Your task to perform on an android device: set the timer Image 0: 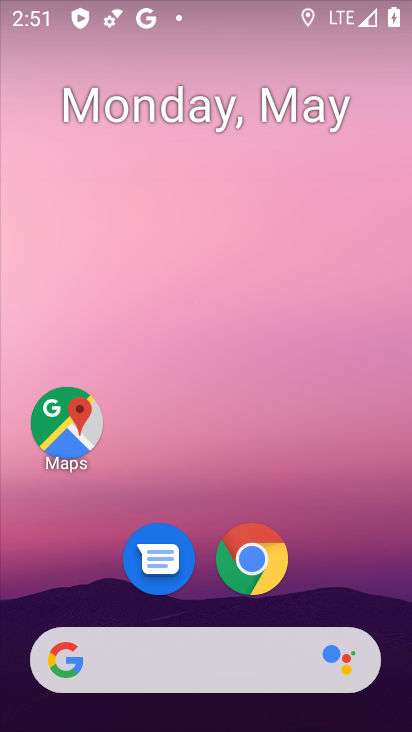
Step 0: drag from (329, 587) to (310, 5)
Your task to perform on an android device: set the timer Image 1: 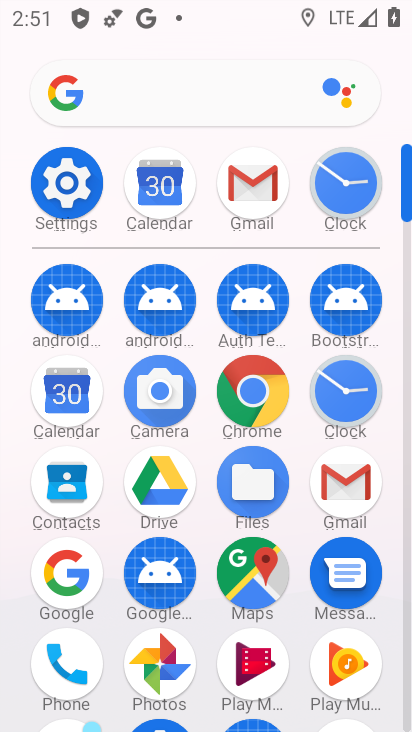
Step 1: click (350, 183)
Your task to perform on an android device: set the timer Image 2: 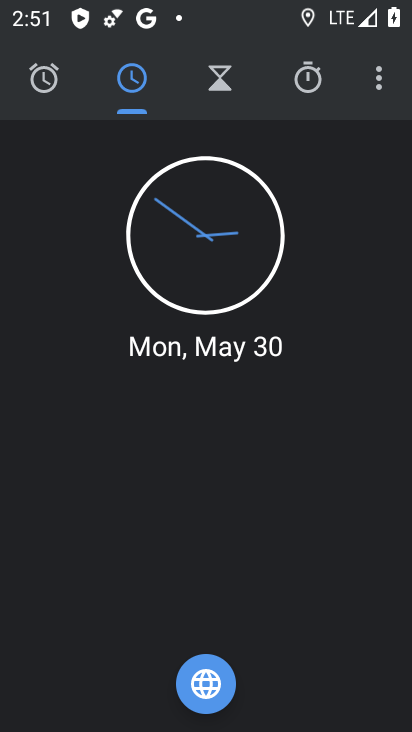
Step 2: click (224, 92)
Your task to perform on an android device: set the timer Image 3: 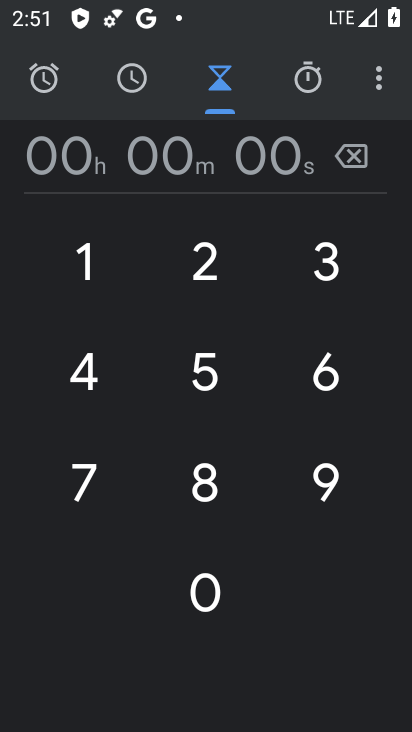
Step 3: click (107, 292)
Your task to perform on an android device: set the timer Image 4: 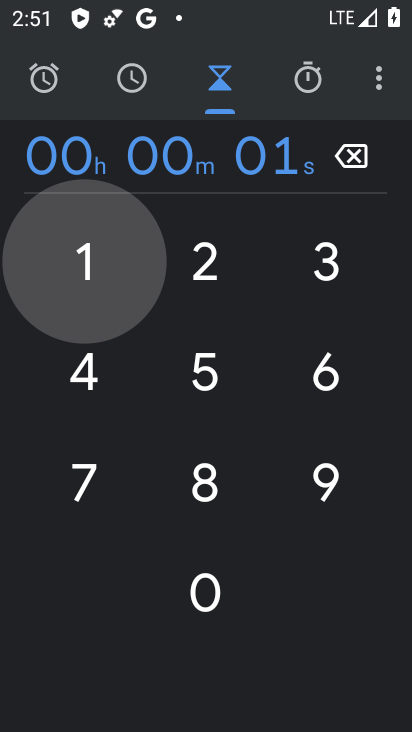
Step 4: click (66, 359)
Your task to perform on an android device: set the timer Image 5: 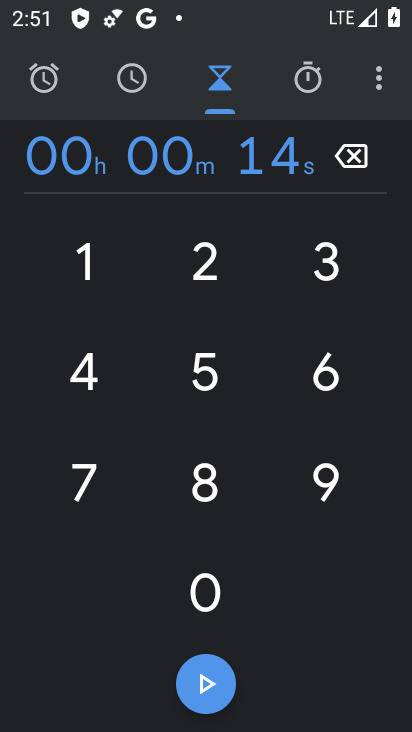
Step 5: click (94, 456)
Your task to perform on an android device: set the timer Image 6: 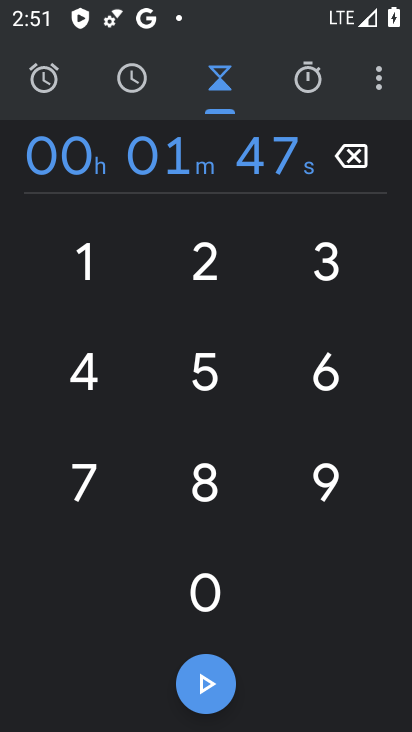
Step 6: click (215, 274)
Your task to perform on an android device: set the timer Image 7: 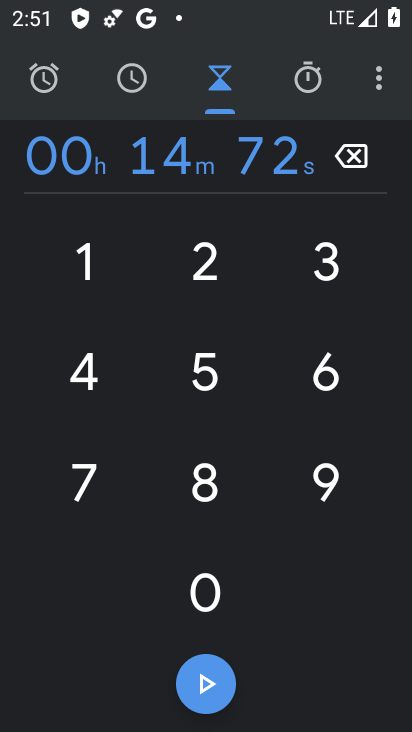
Step 7: click (221, 372)
Your task to perform on an android device: set the timer Image 8: 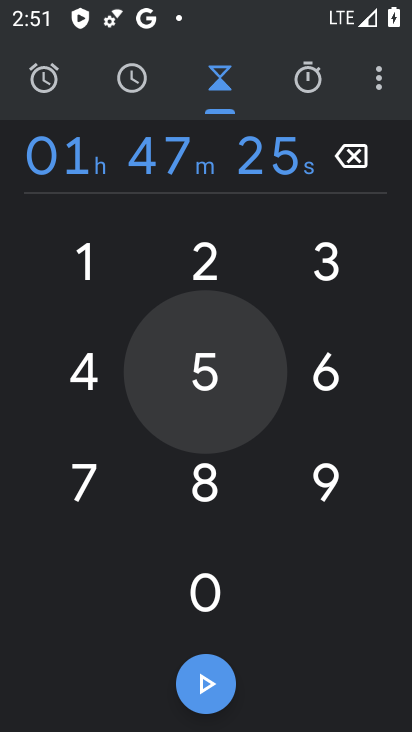
Step 8: click (238, 468)
Your task to perform on an android device: set the timer Image 9: 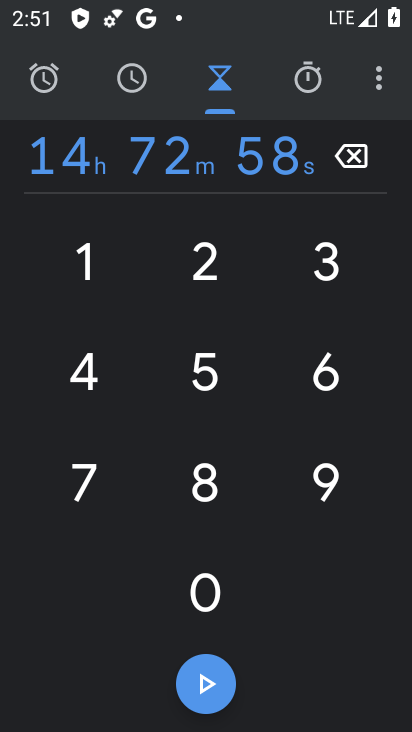
Step 9: click (169, 671)
Your task to perform on an android device: set the timer Image 10: 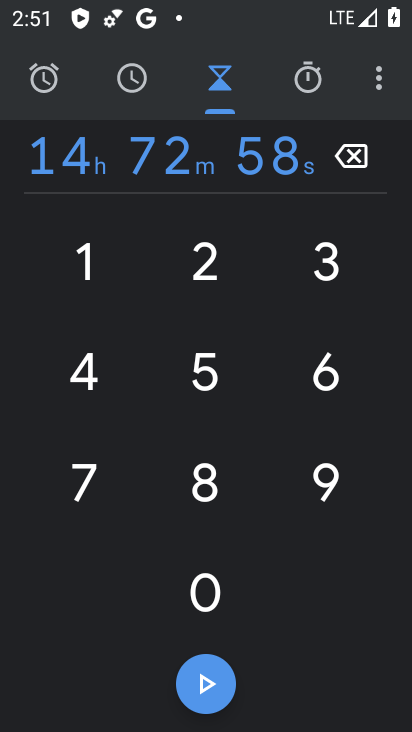
Step 10: click (200, 677)
Your task to perform on an android device: set the timer Image 11: 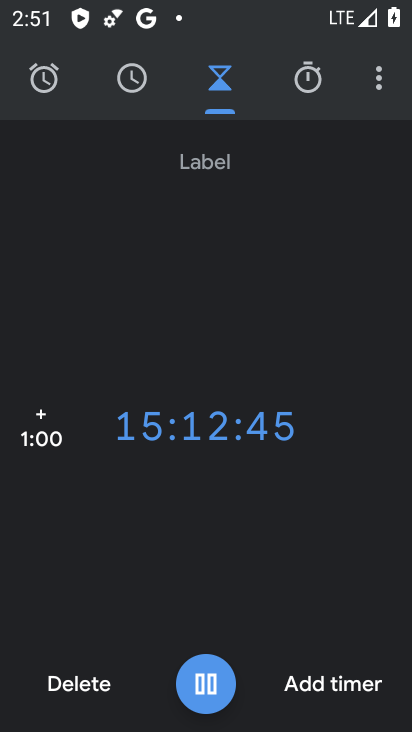
Step 11: task complete